Your task to perform on an android device: Search for a new bike on Walmart. Image 0: 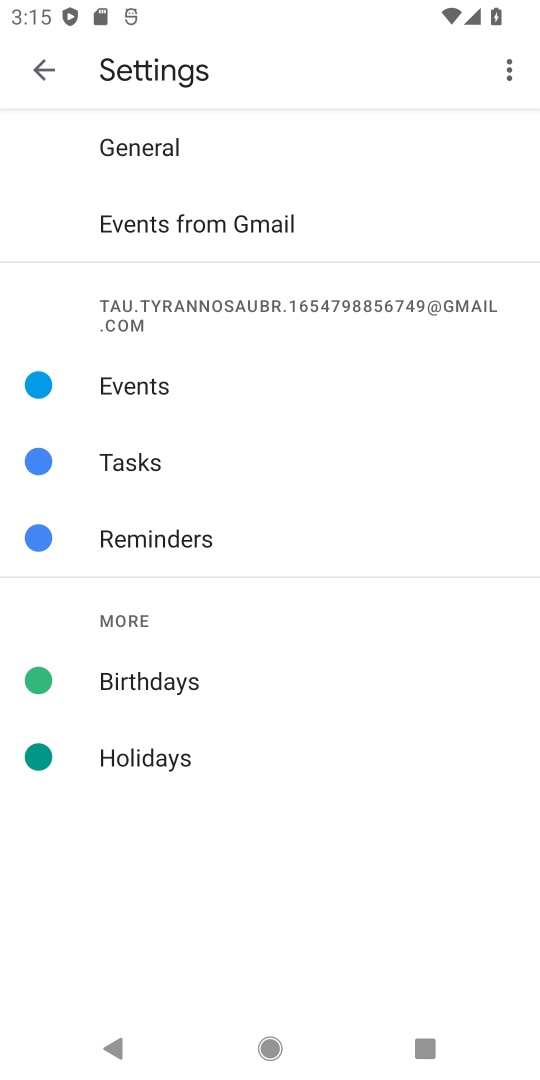
Step 0: press home button
Your task to perform on an android device: Search for a new bike on Walmart. Image 1: 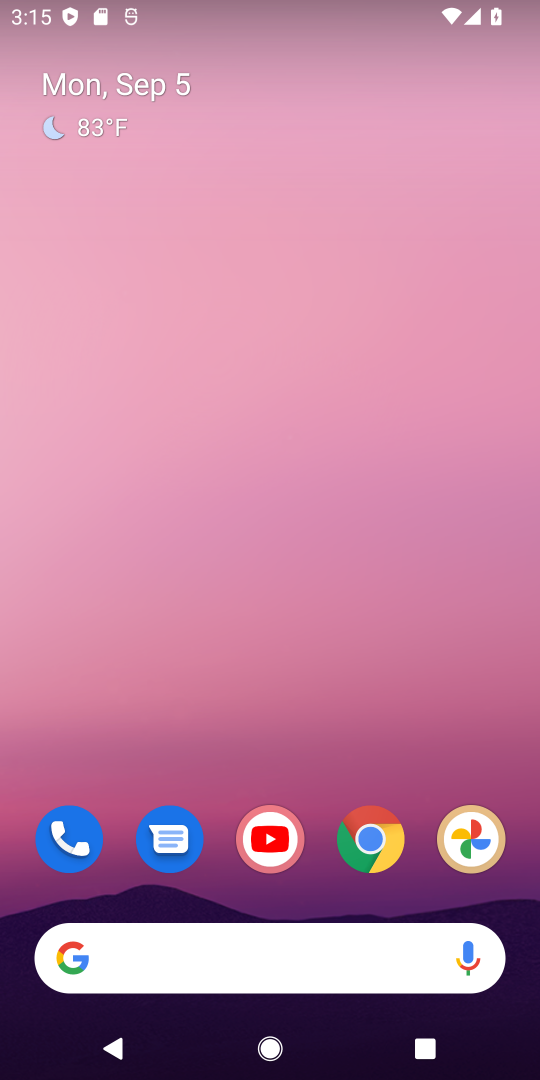
Step 1: click (361, 845)
Your task to perform on an android device: Search for a new bike on Walmart. Image 2: 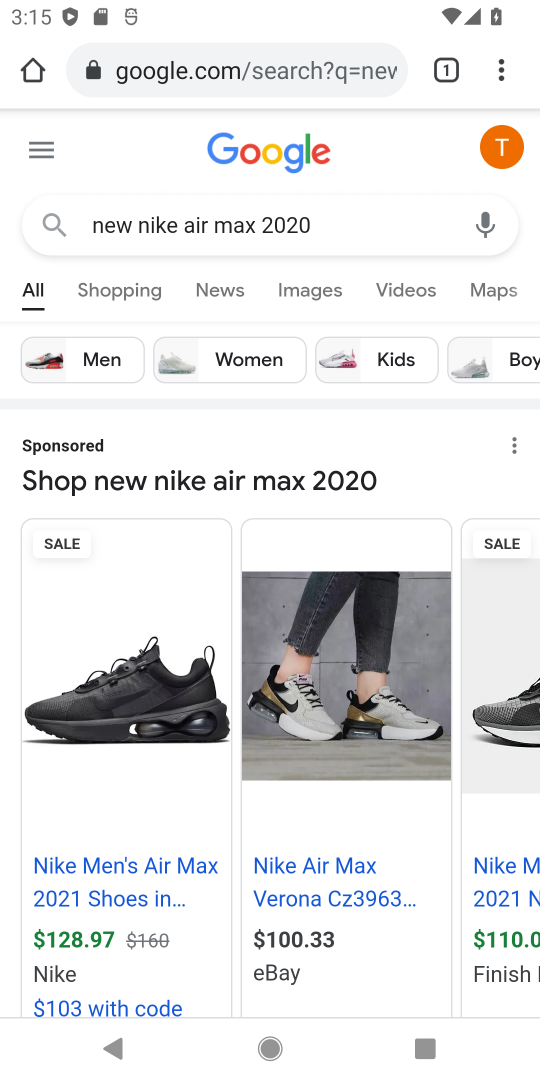
Step 2: click (251, 71)
Your task to perform on an android device: Search for a new bike on Walmart. Image 3: 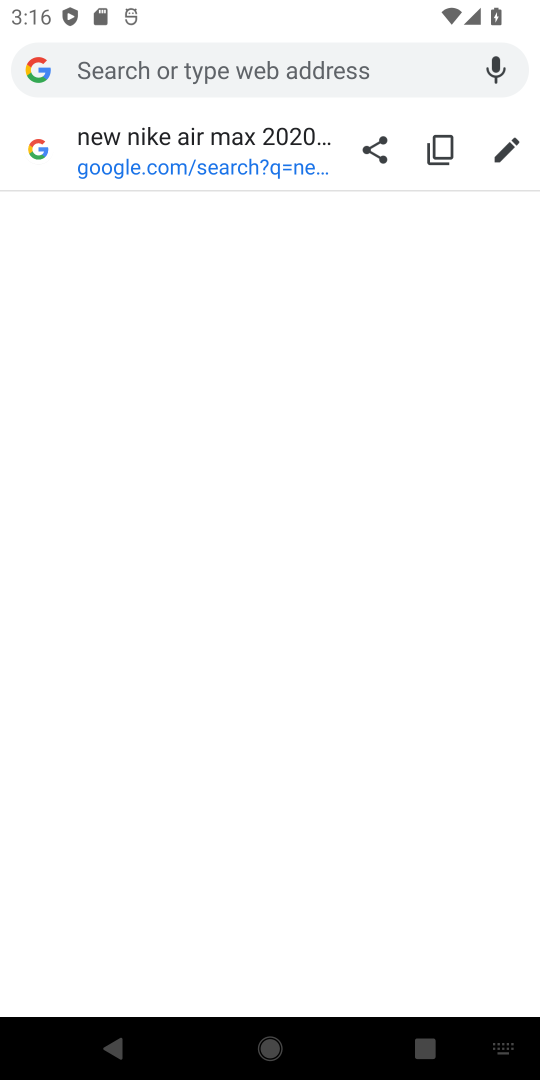
Step 3: type "walmart"
Your task to perform on an android device: Search for a new bike on Walmart. Image 4: 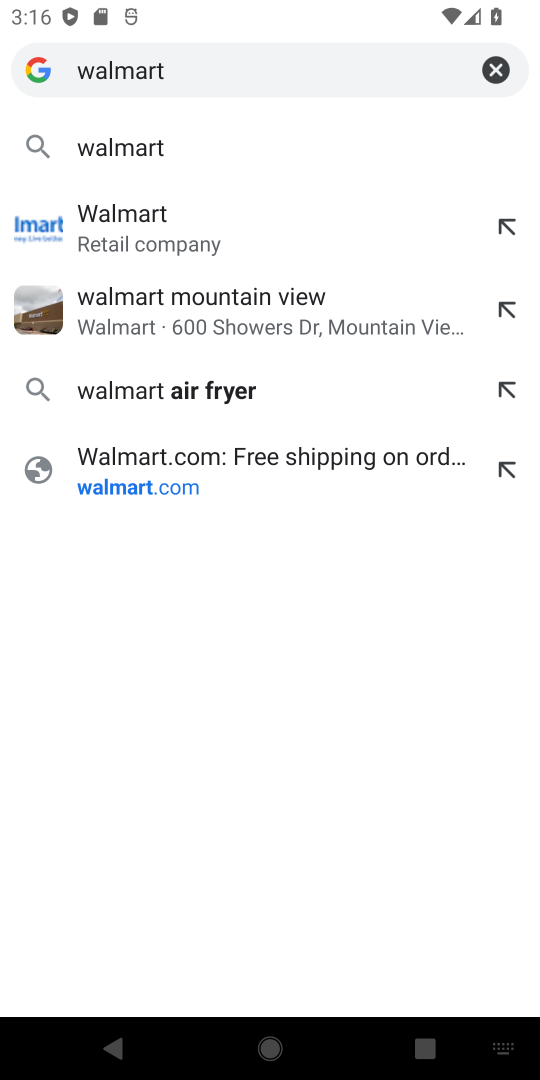
Step 4: click (191, 194)
Your task to perform on an android device: Search for a new bike on Walmart. Image 5: 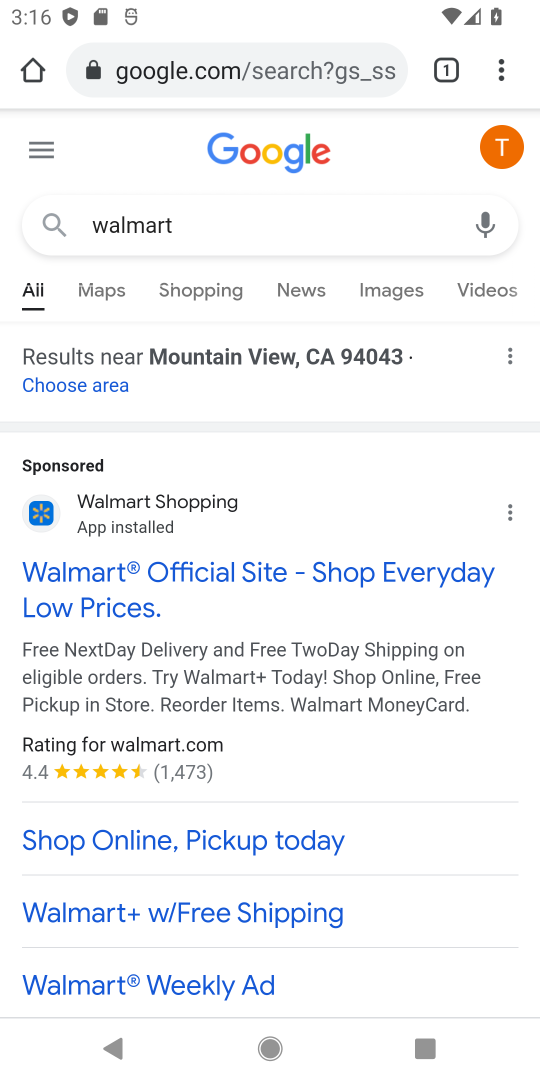
Step 5: click (114, 616)
Your task to perform on an android device: Search for a new bike on Walmart. Image 6: 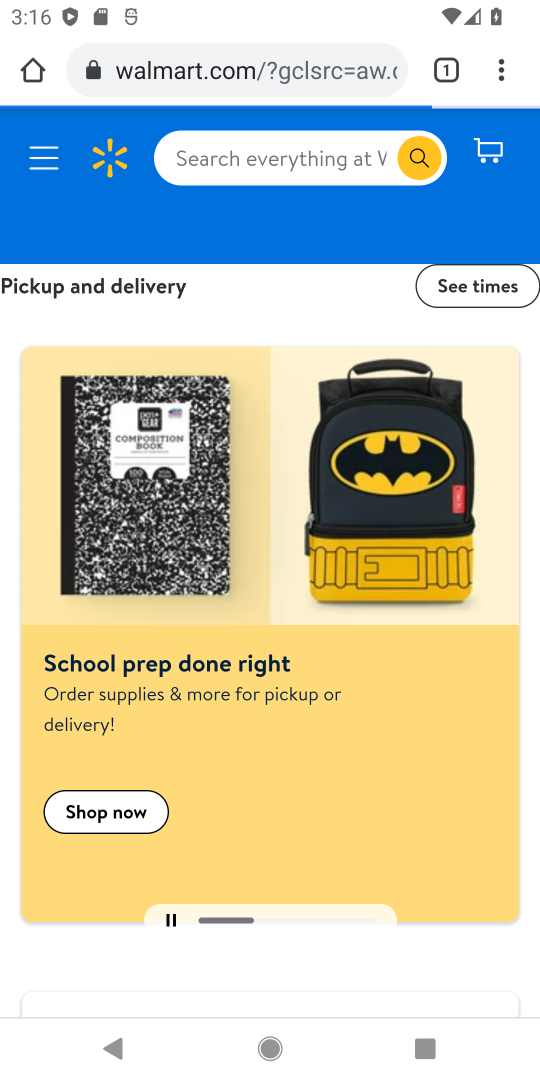
Step 6: click (267, 163)
Your task to perform on an android device: Search for a new bike on Walmart. Image 7: 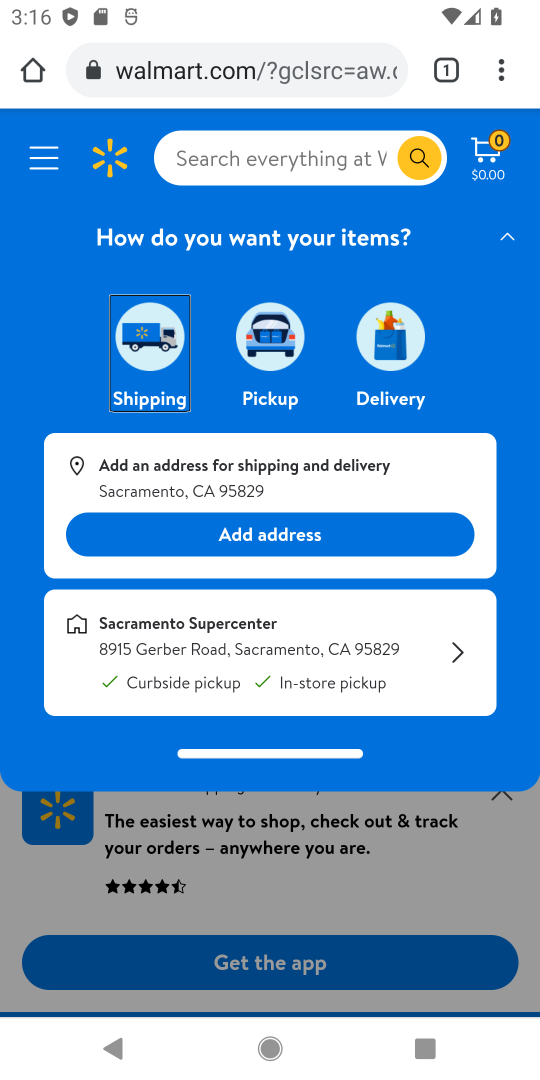
Step 7: type "new Bike"
Your task to perform on an android device: Search for a new bike on Walmart. Image 8: 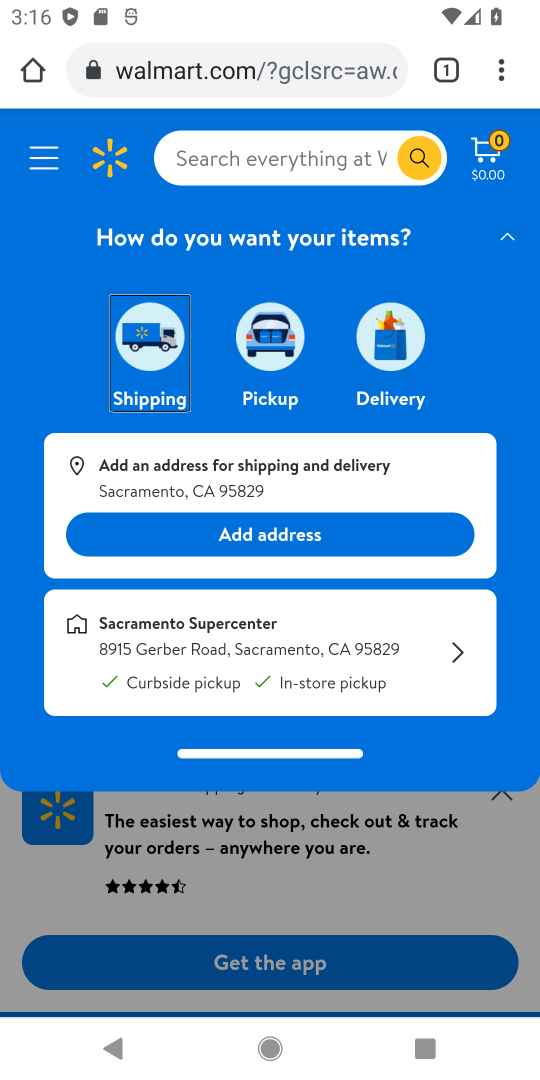
Step 8: click (301, 160)
Your task to perform on an android device: Search for a new bike on Walmart. Image 9: 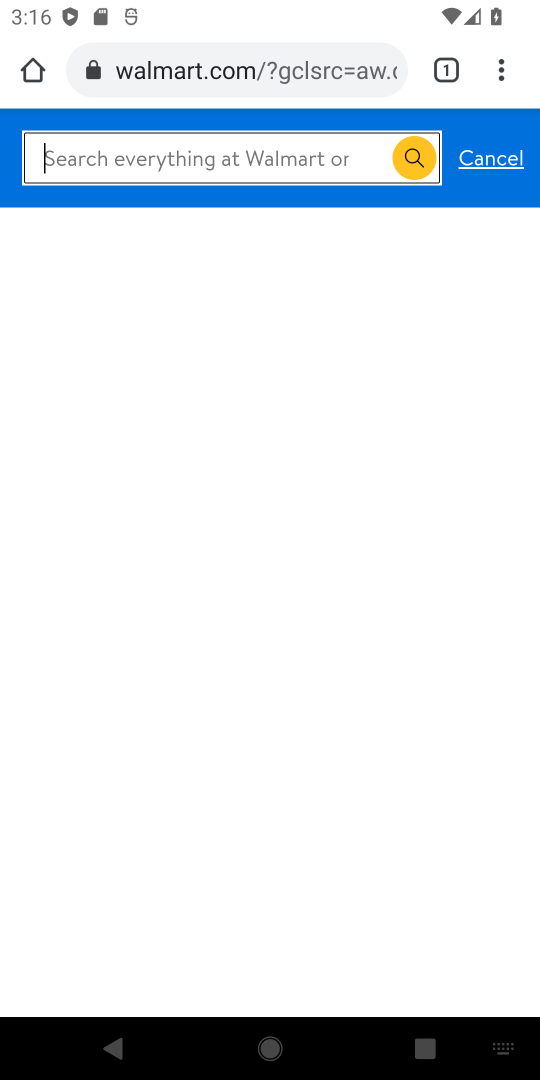
Step 9: type "new bike"
Your task to perform on an android device: Search for a new bike on Walmart. Image 10: 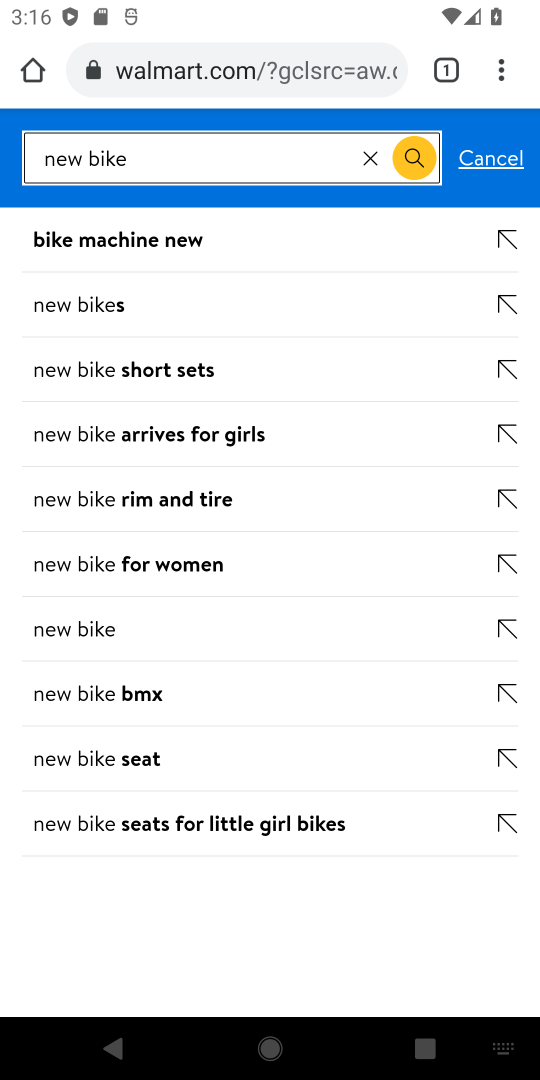
Step 10: click (114, 312)
Your task to perform on an android device: Search for a new bike on Walmart. Image 11: 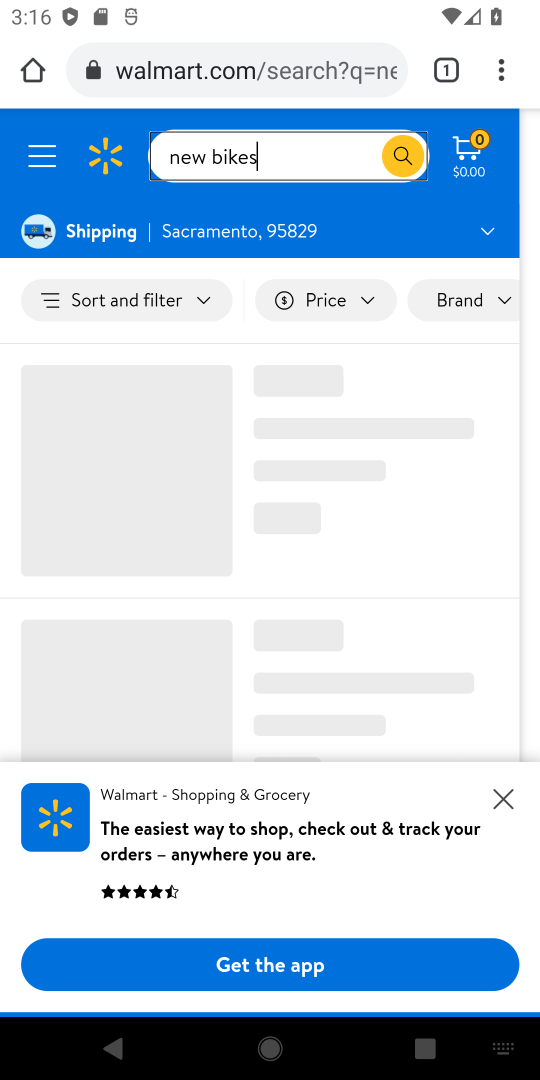
Step 11: click (500, 800)
Your task to perform on an android device: Search for a new bike on Walmart. Image 12: 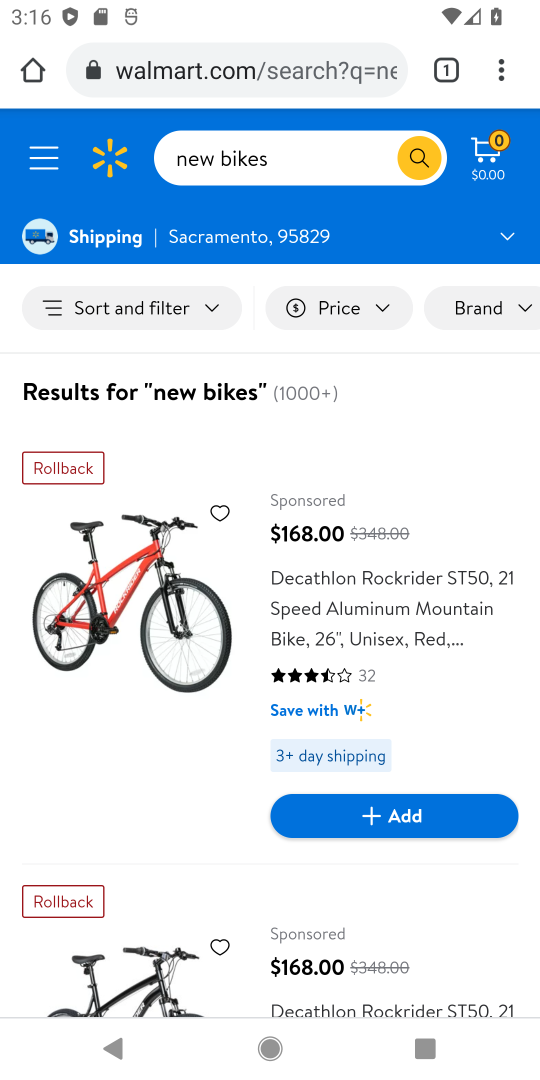
Step 12: task complete